Your task to perform on an android device: Search for Mexican restaurants on Maps Image 0: 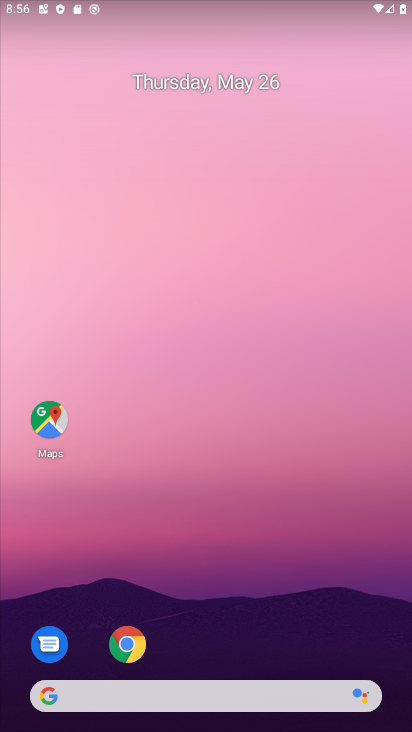
Step 0: click (53, 402)
Your task to perform on an android device: Search for Mexican restaurants on Maps Image 1: 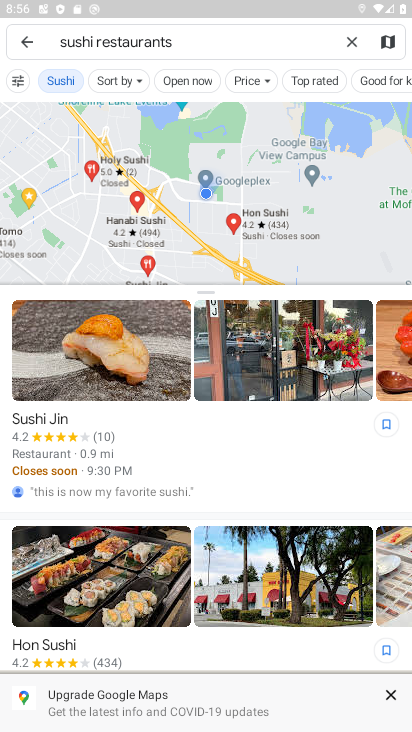
Step 1: click (354, 43)
Your task to perform on an android device: Search for Mexican restaurants on Maps Image 2: 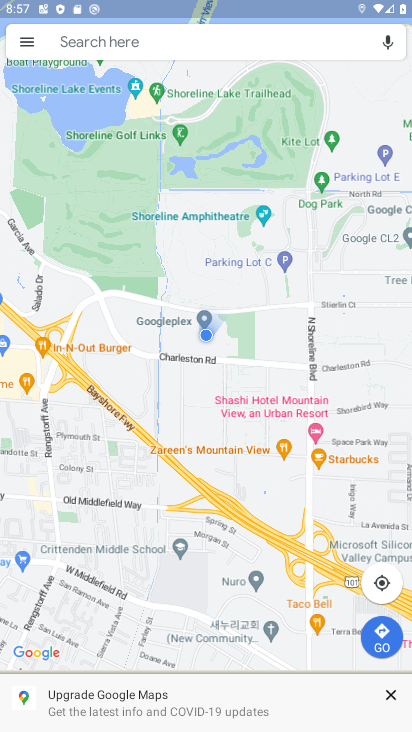
Step 2: click (160, 46)
Your task to perform on an android device: Search for Mexican restaurants on Maps Image 3: 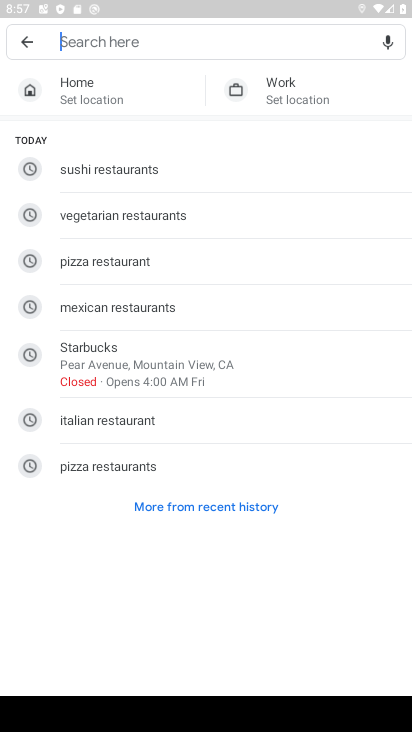
Step 3: click (97, 305)
Your task to perform on an android device: Search for Mexican restaurants on Maps Image 4: 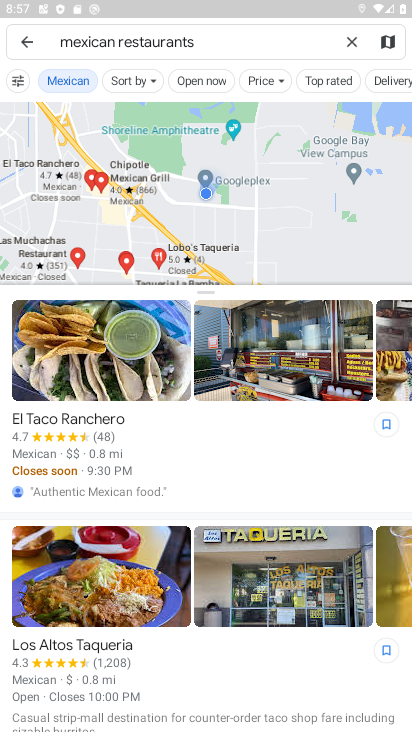
Step 4: task complete